Your task to perform on an android device: find which apps use the phone's location Image 0: 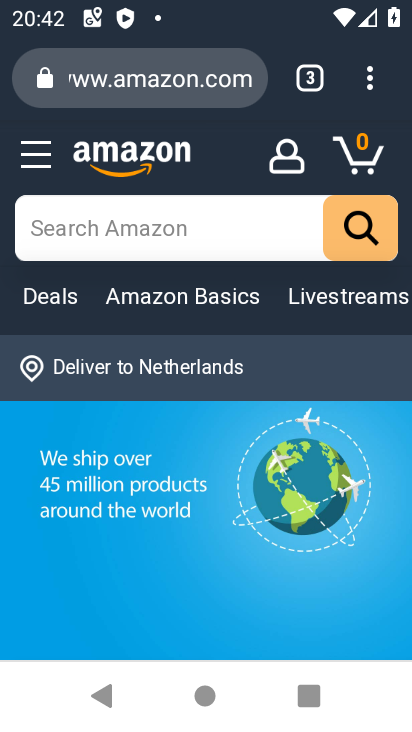
Step 0: press home button
Your task to perform on an android device: find which apps use the phone's location Image 1: 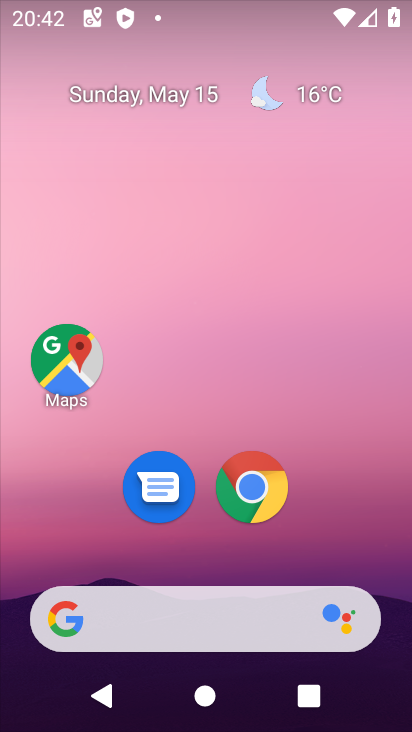
Step 1: drag from (386, 520) to (391, 195)
Your task to perform on an android device: find which apps use the phone's location Image 2: 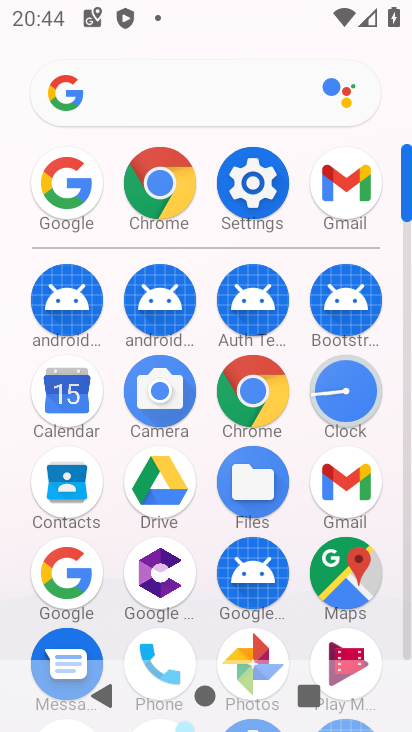
Step 2: click (256, 193)
Your task to perform on an android device: find which apps use the phone's location Image 3: 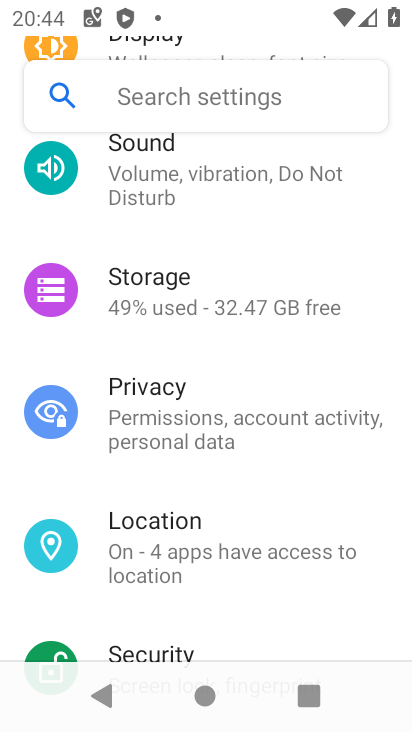
Step 3: click (148, 532)
Your task to perform on an android device: find which apps use the phone's location Image 4: 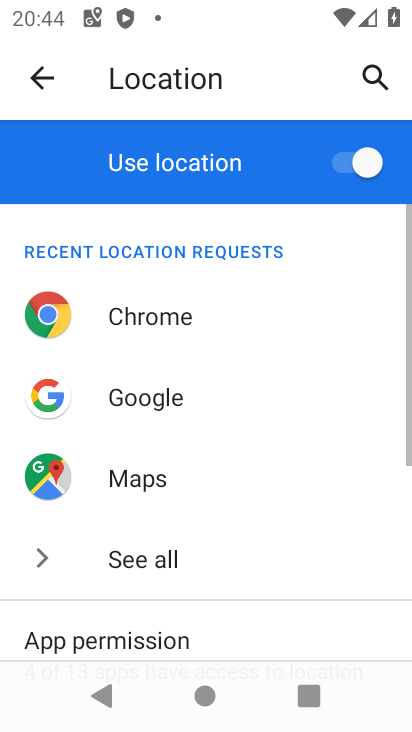
Step 4: drag from (292, 554) to (294, 349)
Your task to perform on an android device: find which apps use the phone's location Image 5: 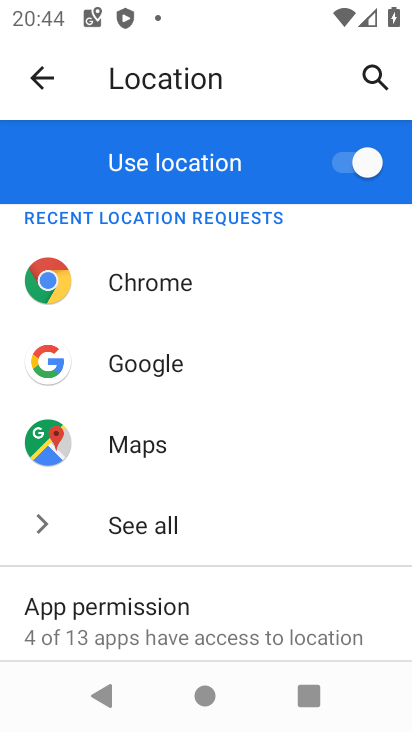
Step 5: drag from (304, 626) to (310, 359)
Your task to perform on an android device: find which apps use the phone's location Image 6: 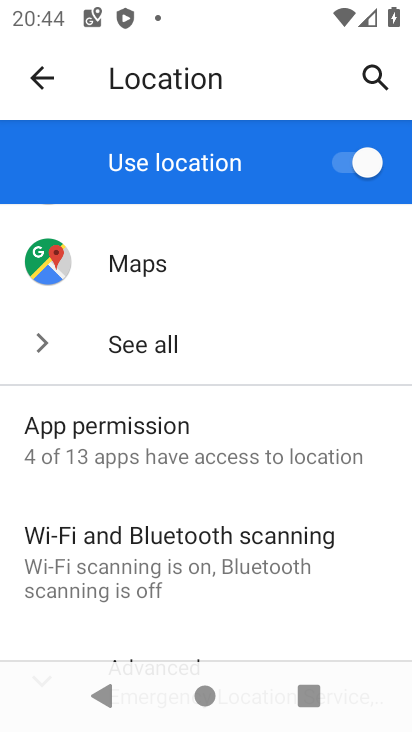
Step 6: drag from (324, 644) to (322, 408)
Your task to perform on an android device: find which apps use the phone's location Image 7: 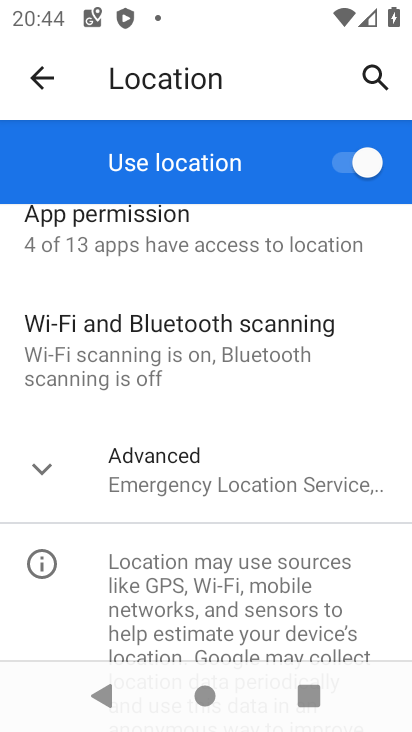
Step 7: click (112, 222)
Your task to perform on an android device: find which apps use the phone's location Image 8: 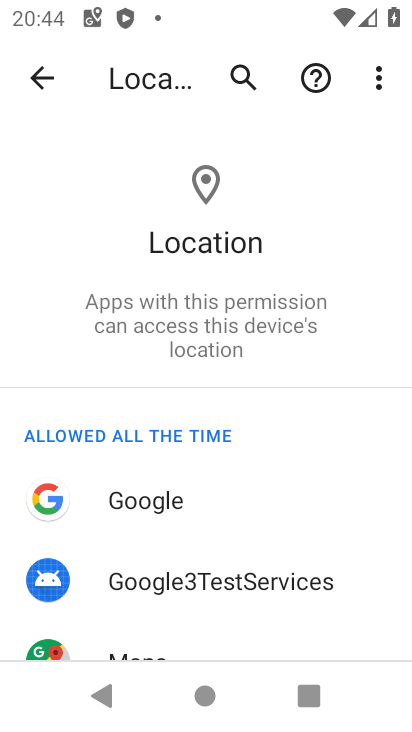
Step 8: task complete